Your task to perform on an android device: turn on the 24-hour format for clock Image 0: 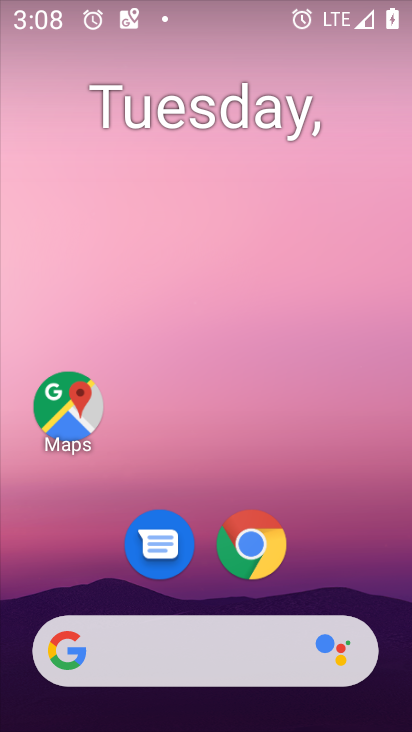
Step 0: drag from (306, 469) to (214, 6)
Your task to perform on an android device: turn on the 24-hour format for clock Image 1: 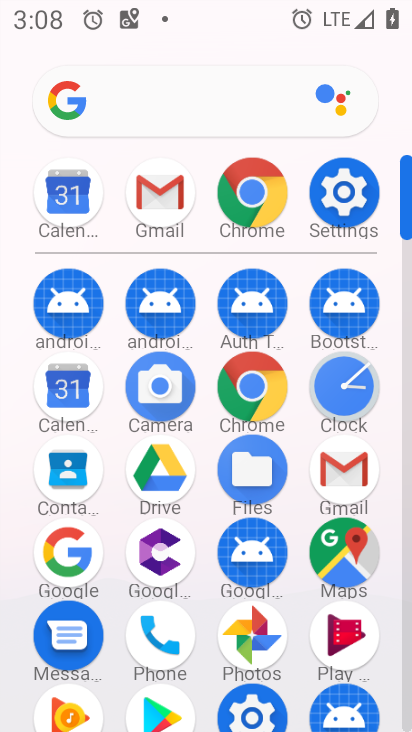
Step 1: drag from (15, 619) to (4, 220)
Your task to perform on an android device: turn on the 24-hour format for clock Image 2: 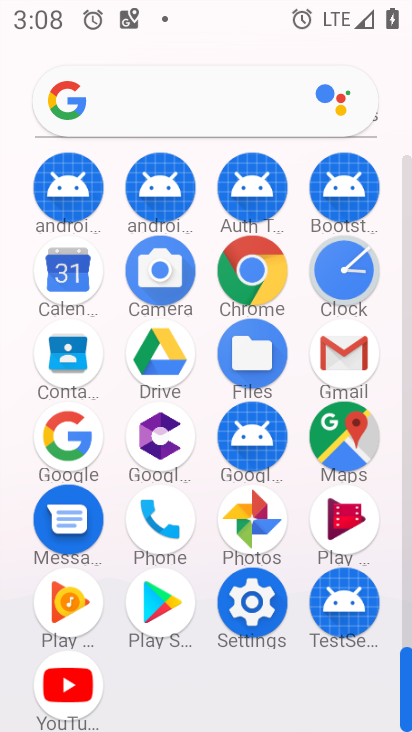
Step 2: click (337, 269)
Your task to perform on an android device: turn on the 24-hour format for clock Image 3: 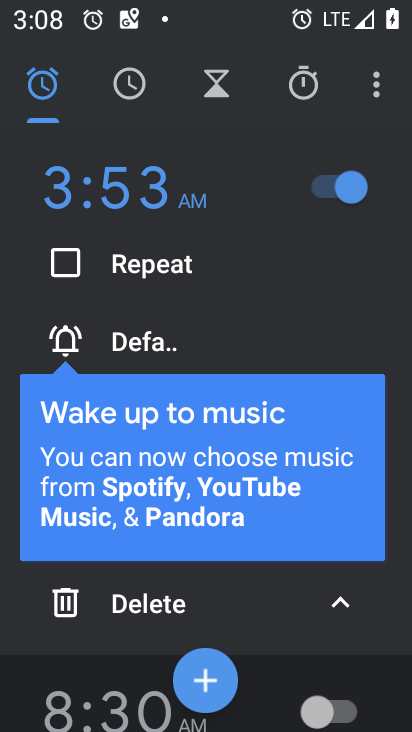
Step 3: drag from (370, 76) to (222, 200)
Your task to perform on an android device: turn on the 24-hour format for clock Image 4: 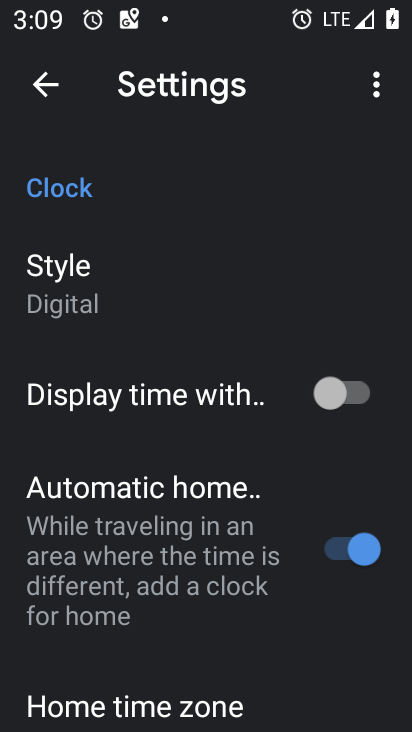
Step 4: drag from (169, 592) to (174, 204)
Your task to perform on an android device: turn on the 24-hour format for clock Image 5: 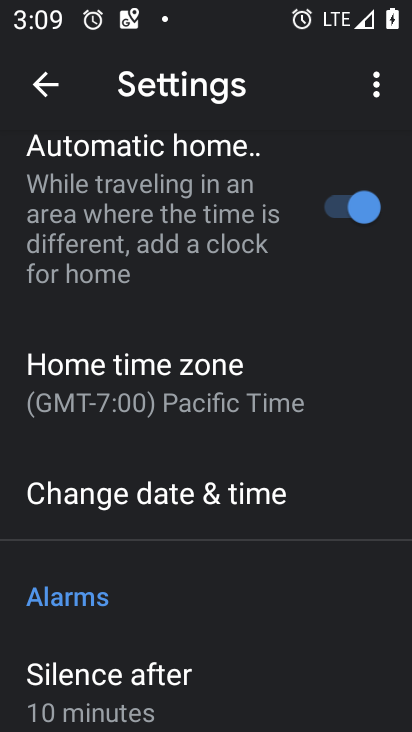
Step 5: click (208, 498)
Your task to perform on an android device: turn on the 24-hour format for clock Image 6: 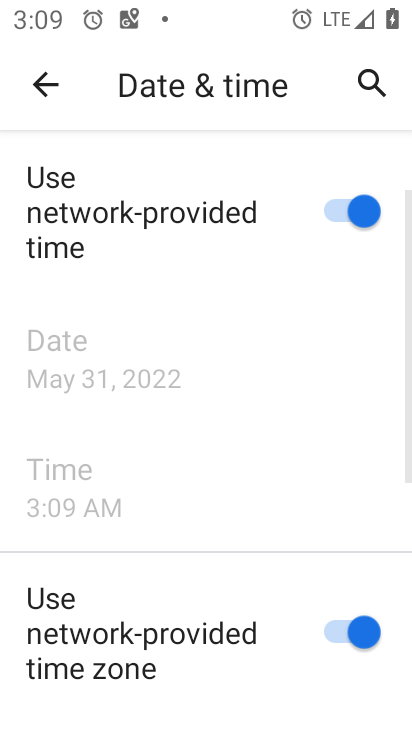
Step 6: drag from (206, 614) to (194, 264)
Your task to perform on an android device: turn on the 24-hour format for clock Image 7: 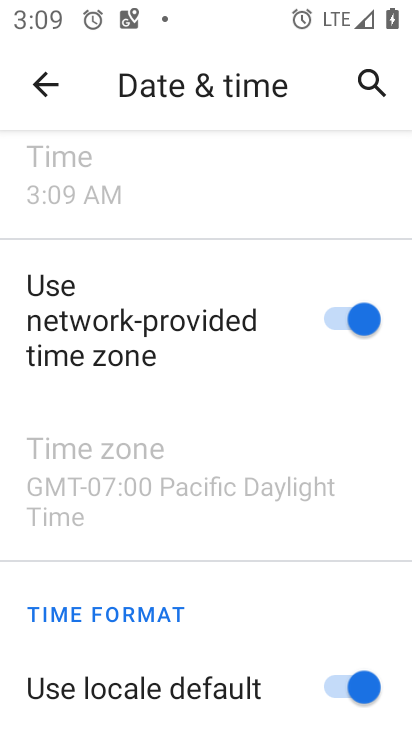
Step 7: drag from (226, 587) to (233, 179)
Your task to perform on an android device: turn on the 24-hour format for clock Image 8: 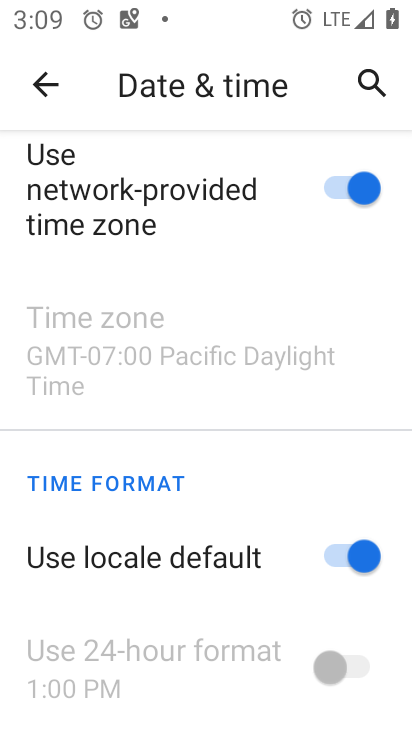
Step 8: click (358, 547)
Your task to perform on an android device: turn on the 24-hour format for clock Image 9: 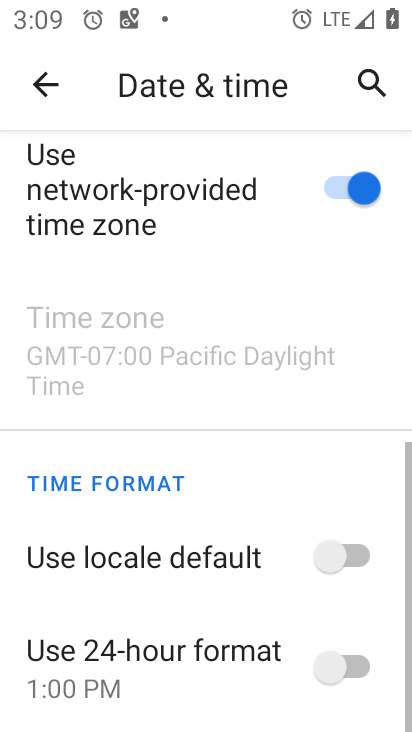
Step 9: click (349, 653)
Your task to perform on an android device: turn on the 24-hour format for clock Image 10: 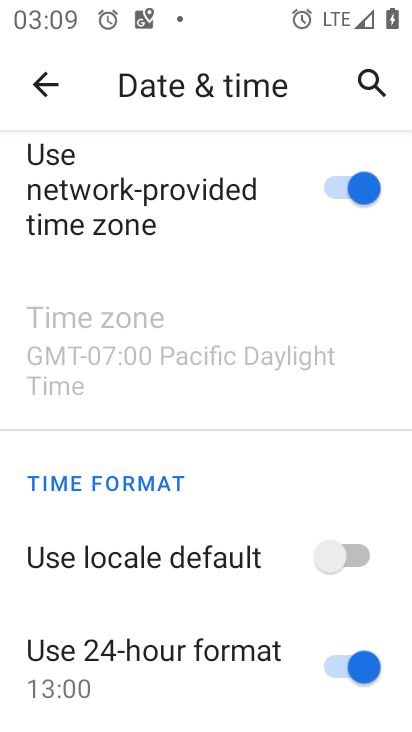
Step 10: task complete